Your task to perform on an android device: change keyboard looks Image 0: 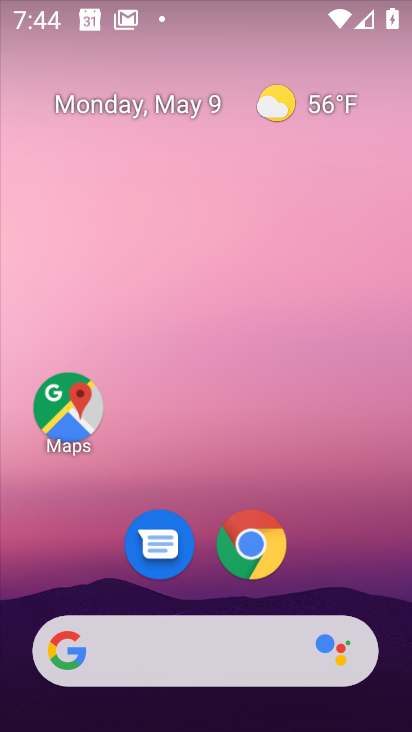
Step 0: drag from (341, 555) to (253, 44)
Your task to perform on an android device: change keyboard looks Image 1: 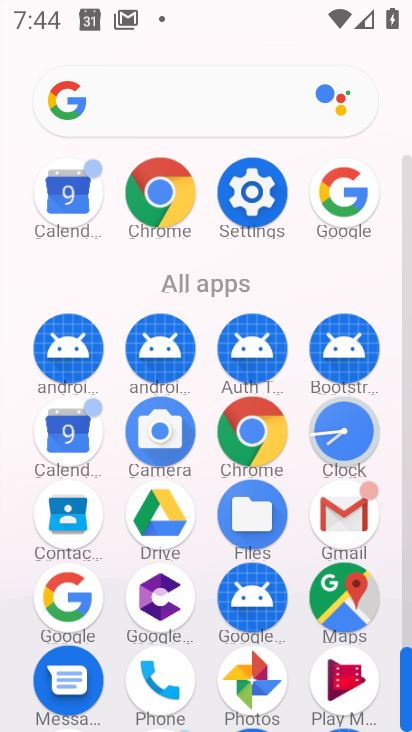
Step 1: click (252, 194)
Your task to perform on an android device: change keyboard looks Image 2: 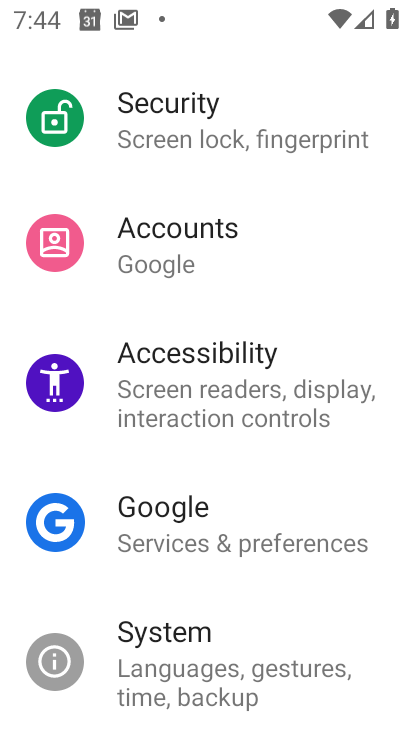
Step 2: click (182, 629)
Your task to perform on an android device: change keyboard looks Image 3: 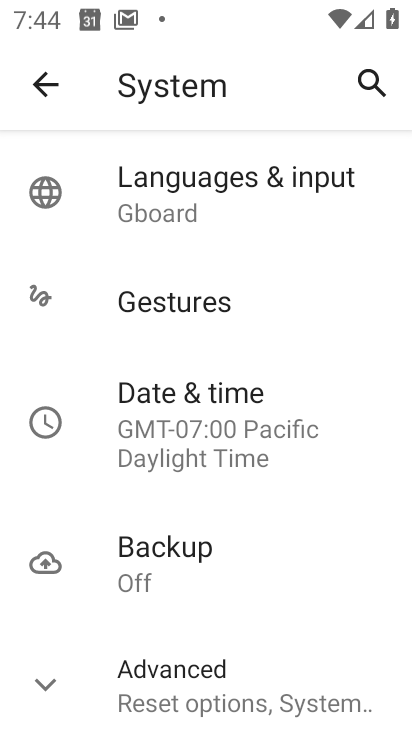
Step 3: click (175, 184)
Your task to perform on an android device: change keyboard looks Image 4: 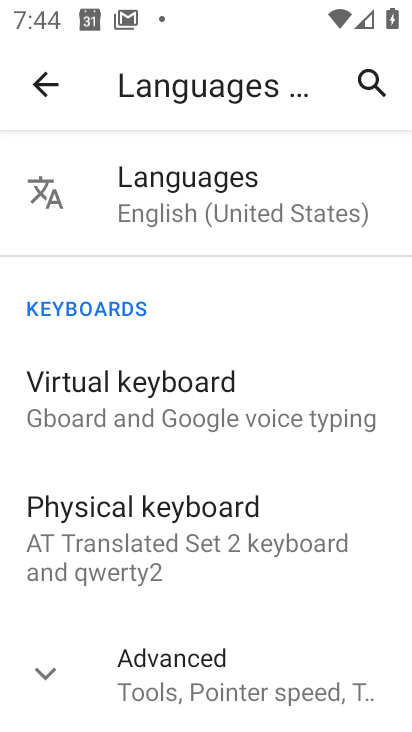
Step 4: click (189, 393)
Your task to perform on an android device: change keyboard looks Image 5: 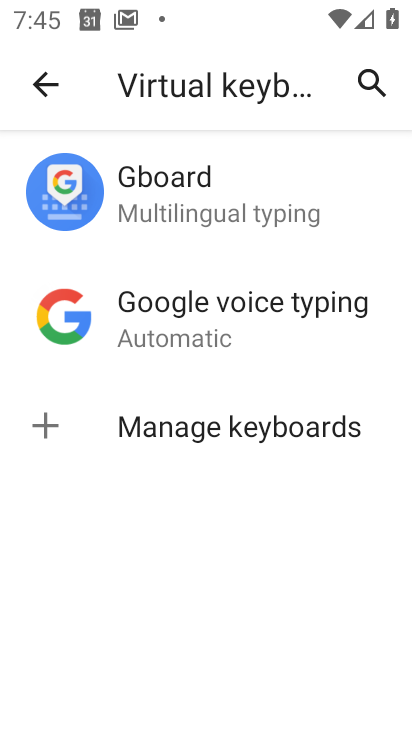
Step 5: click (180, 179)
Your task to perform on an android device: change keyboard looks Image 6: 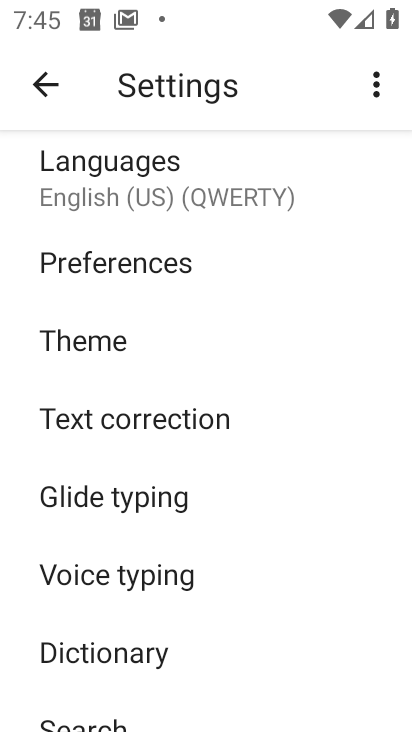
Step 6: click (103, 345)
Your task to perform on an android device: change keyboard looks Image 7: 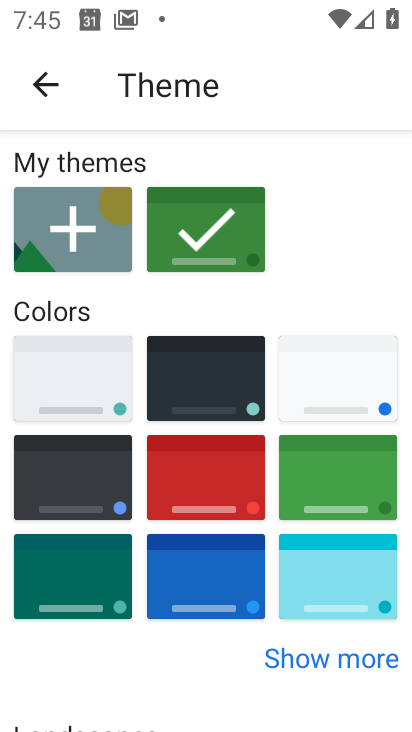
Step 7: click (324, 481)
Your task to perform on an android device: change keyboard looks Image 8: 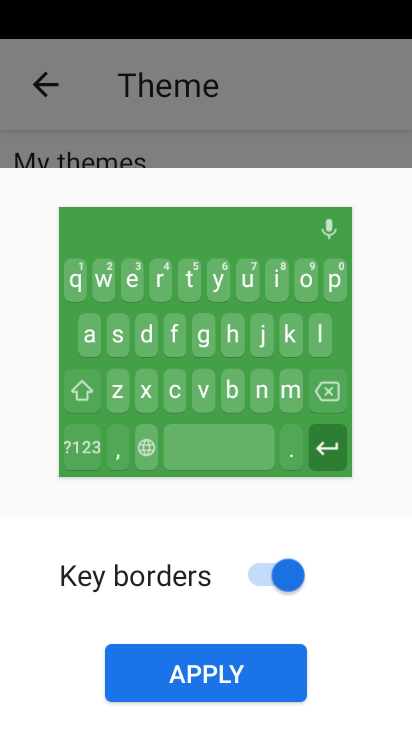
Step 8: click (251, 677)
Your task to perform on an android device: change keyboard looks Image 9: 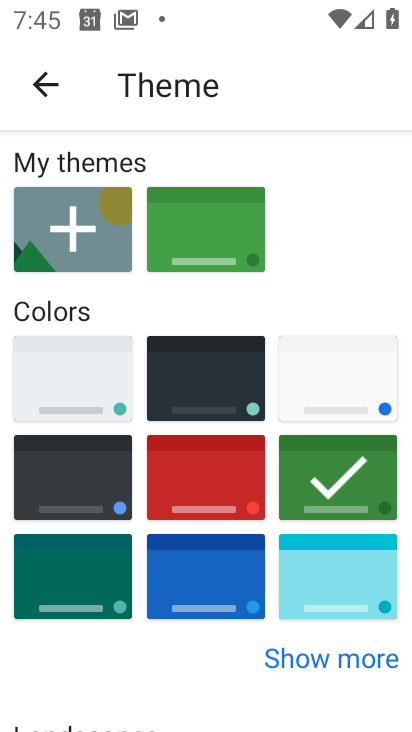
Step 9: task complete